Your task to perform on an android device: change keyboard looks Image 0: 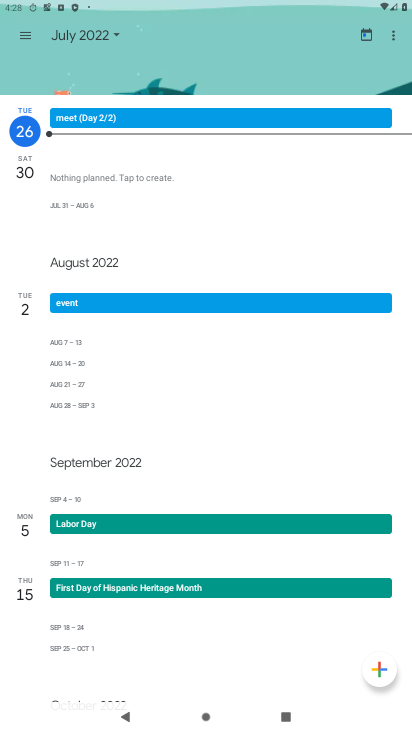
Step 0: press home button
Your task to perform on an android device: change keyboard looks Image 1: 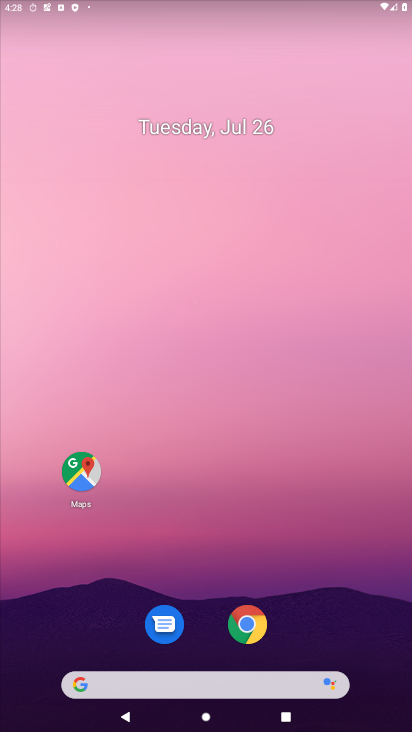
Step 1: drag from (318, 678) to (312, 0)
Your task to perform on an android device: change keyboard looks Image 2: 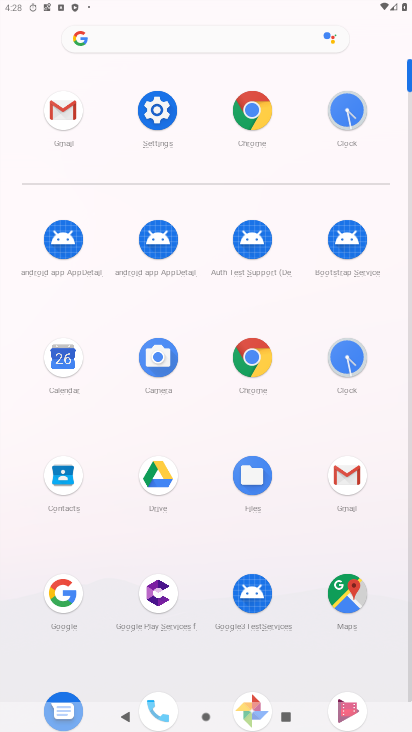
Step 2: click (166, 106)
Your task to perform on an android device: change keyboard looks Image 3: 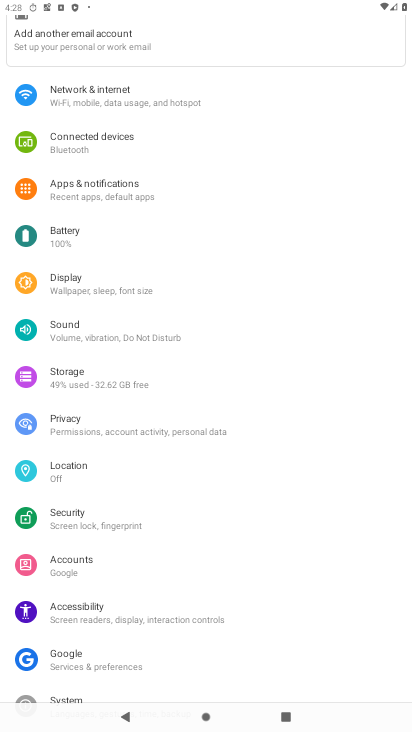
Step 3: drag from (199, 651) to (199, 185)
Your task to perform on an android device: change keyboard looks Image 4: 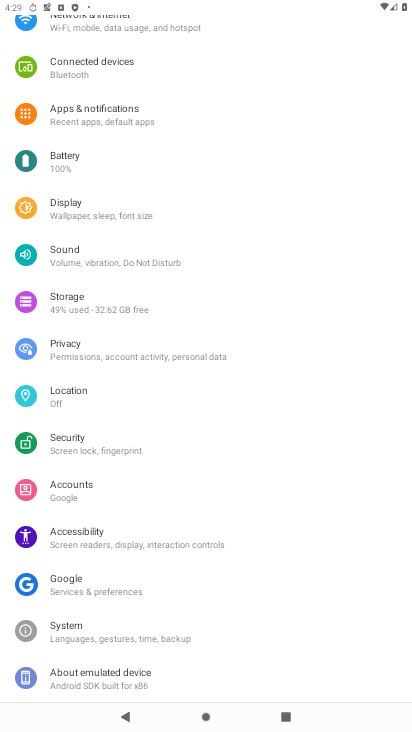
Step 4: click (119, 642)
Your task to perform on an android device: change keyboard looks Image 5: 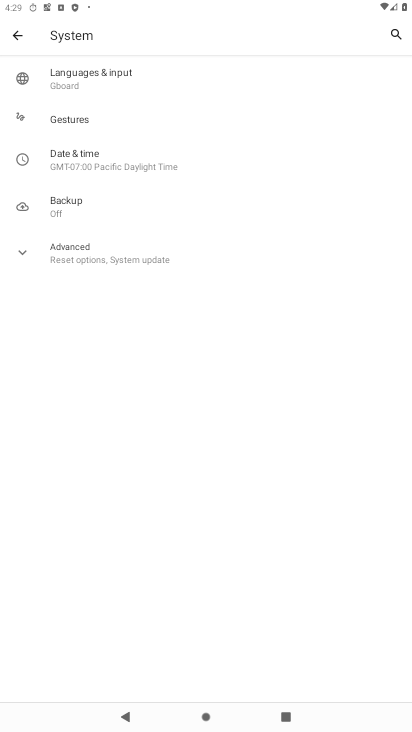
Step 5: click (78, 88)
Your task to perform on an android device: change keyboard looks Image 6: 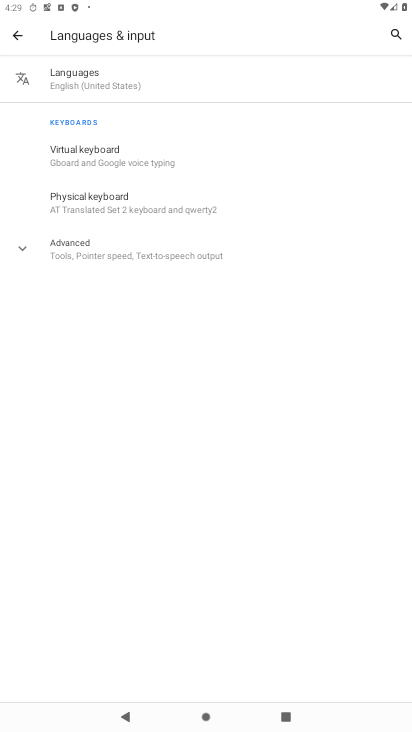
Step 6: click (141, 157)
Your task to perform on an android device: change keyboard looks Image 7: 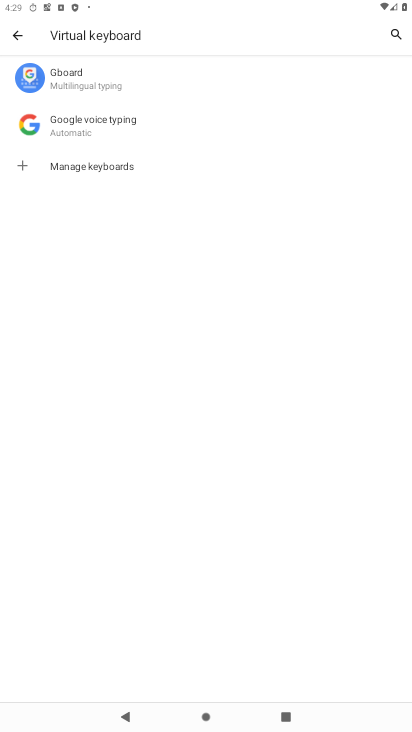
Step 7: click (130, 85)
Your task to perform on an android device: change keyboard looks Image 8: 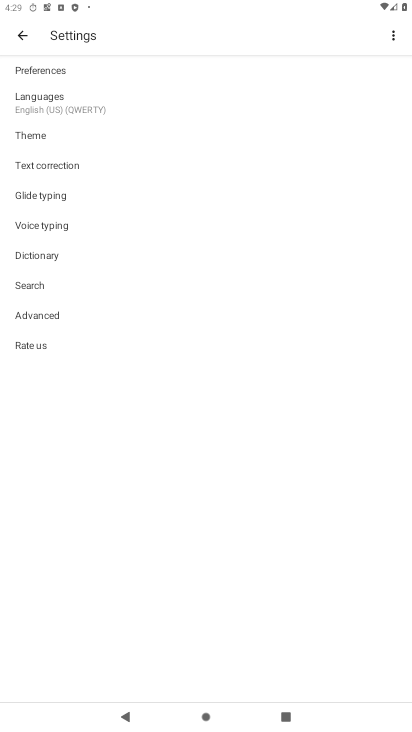
Step 8: click (54, 142)
Your task to perform on an android device: change keyboard looks Image 9: 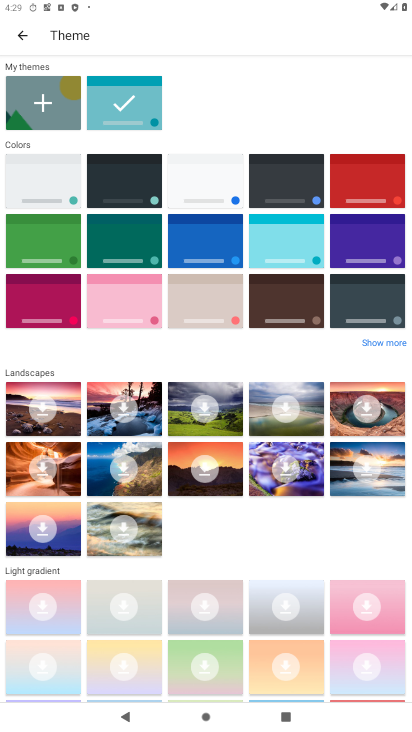
Step 9: click (279, 295)
Your task to perform on an android device: change keyboard looks Image 10: 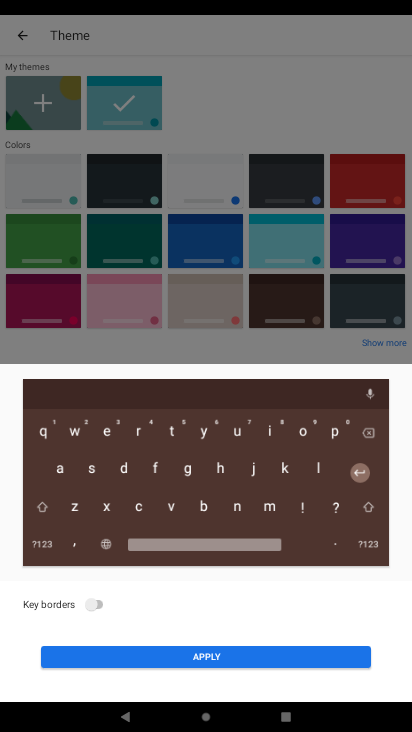
Step 10: click (310, 656)
Your task to perform on an android device: change keyboard looks Image 11: 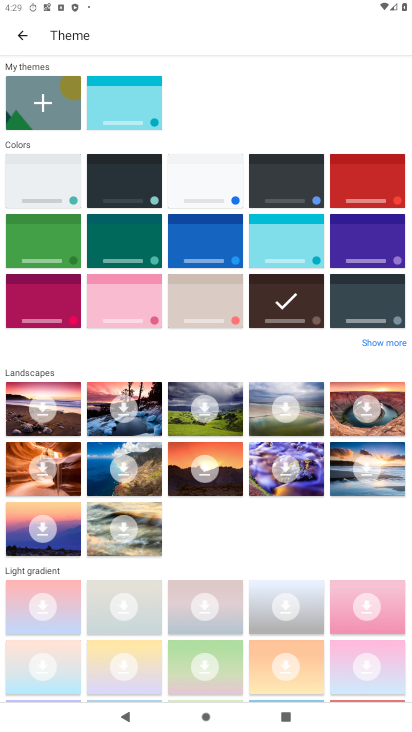
Step 11: task complete